Your task to perform on an android device: Open the contacts Image 0: 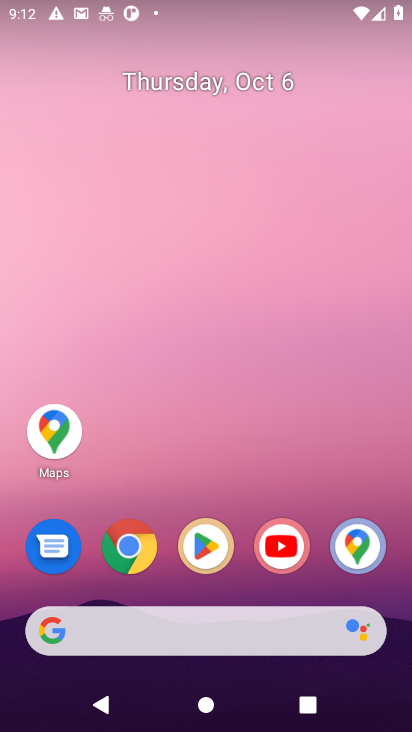
Step 0: drag from (315, 586) to (322, 164)
Your task to perform on an android device: Open the contacts Image 1: 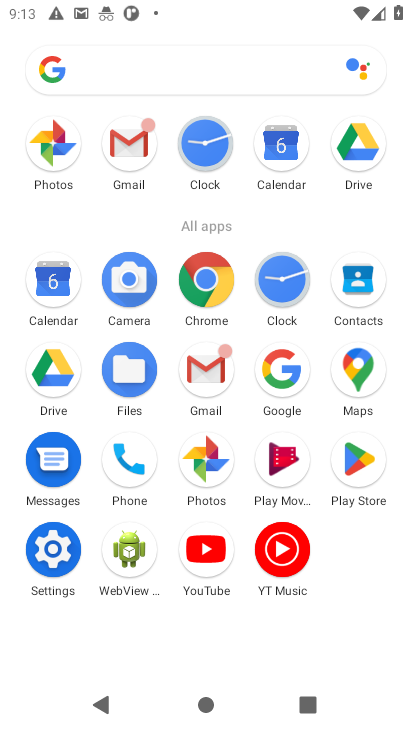
Step 1: click (357, 275)
Your task to perform on an android device: Open the contacts Image 2: 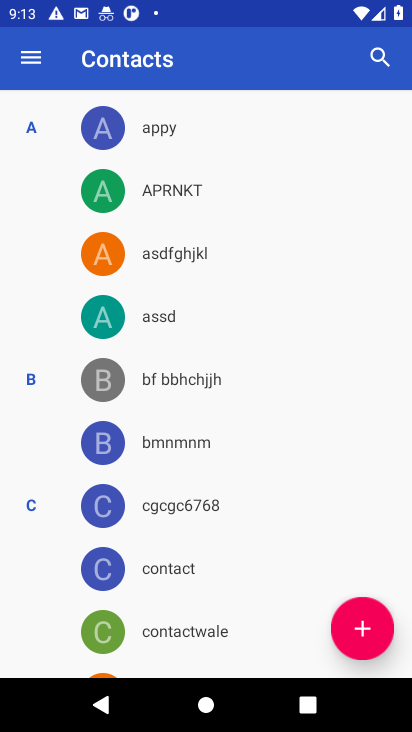
Step 2: task complete